Your task to perform on an android device: set the stopwatch Image 0: 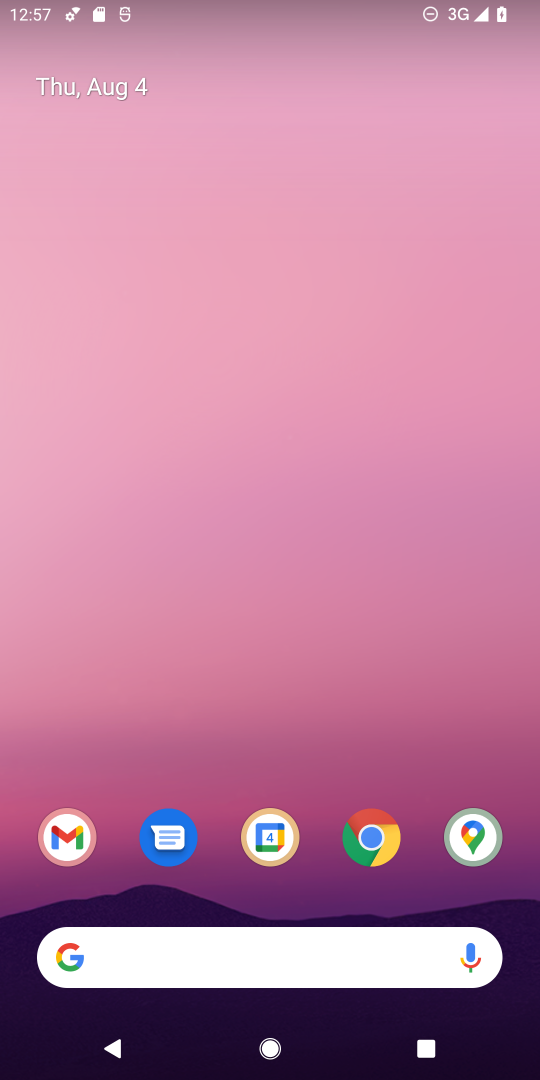
Step 0: drag from (434, 881) to (244, 109)
Your task to perform on an android device: set the stopwatch Image 1: 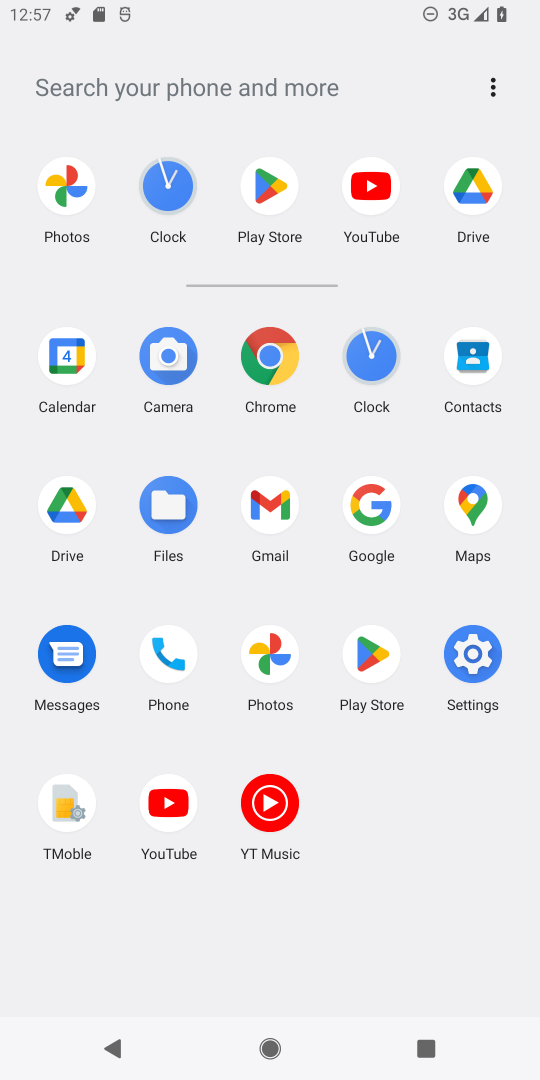
Step 1: click (374, 354)
Your task to perform on an android device: set the stopwatch Image 2: 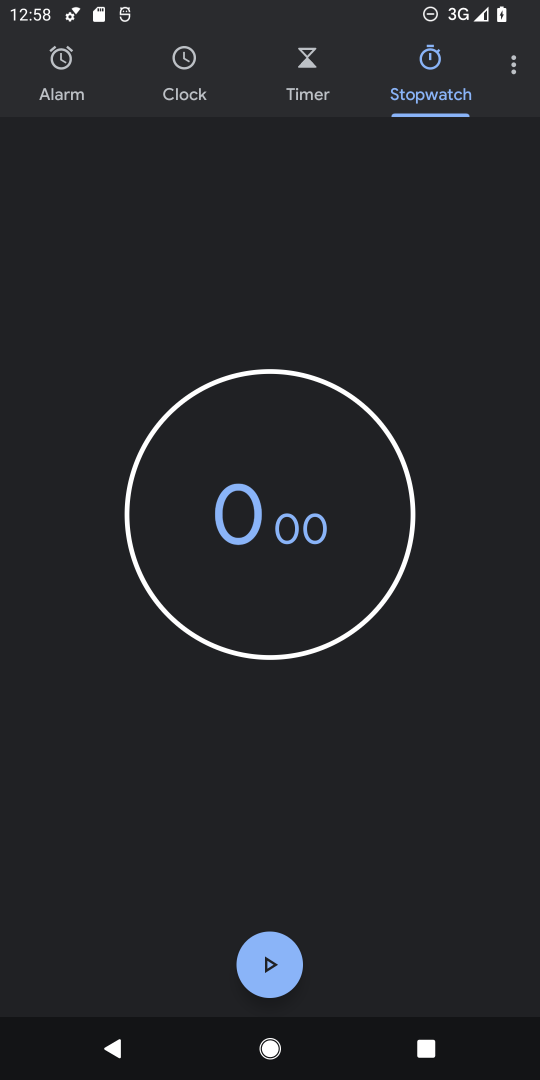
Step 2: click (257, 959)
Your task to perform on an android device: set the stopwatch Image 3: 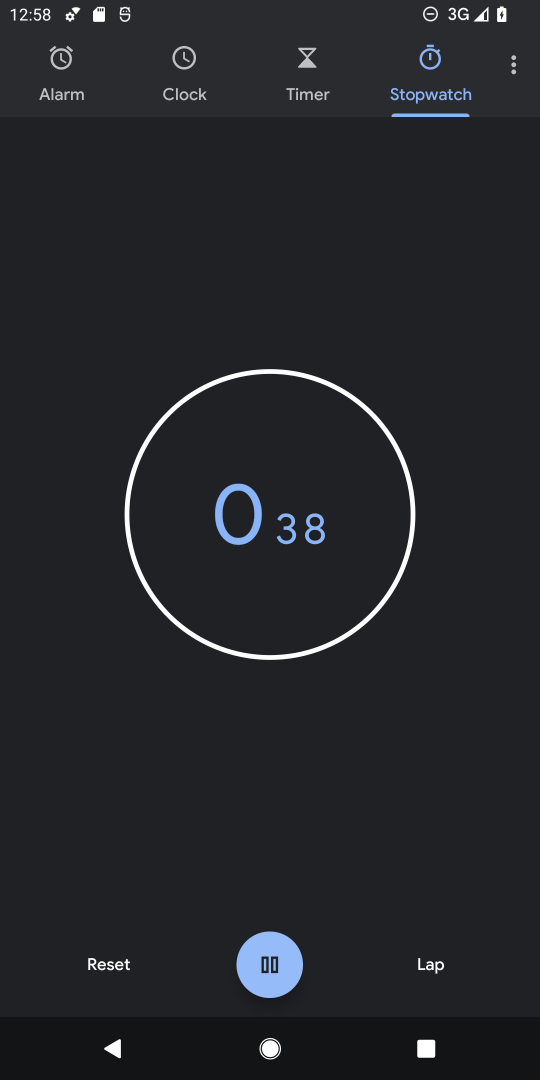
Step 3: click (257, 959)
Your task to perform on an android device: set the stopwatch Image 4: 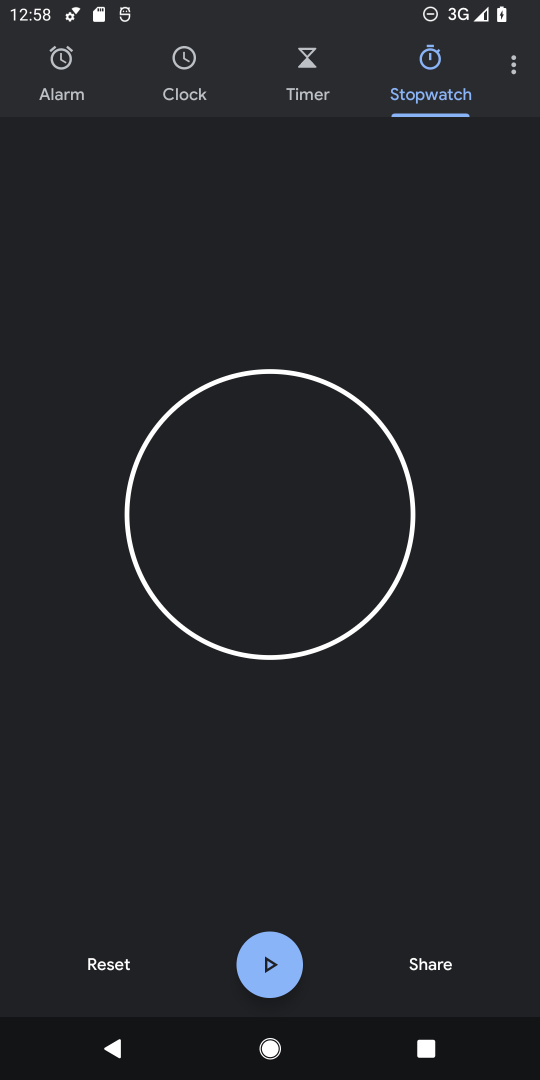
Step 4: task complete